Your task to perform on an android device: Do I have any events today? Image 0: 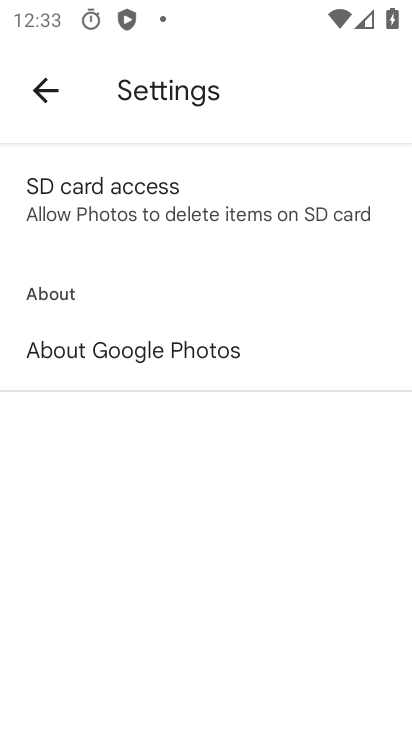
Step 0: press home button
Your task to perform on an android device: Do I have any events today? Image 1: 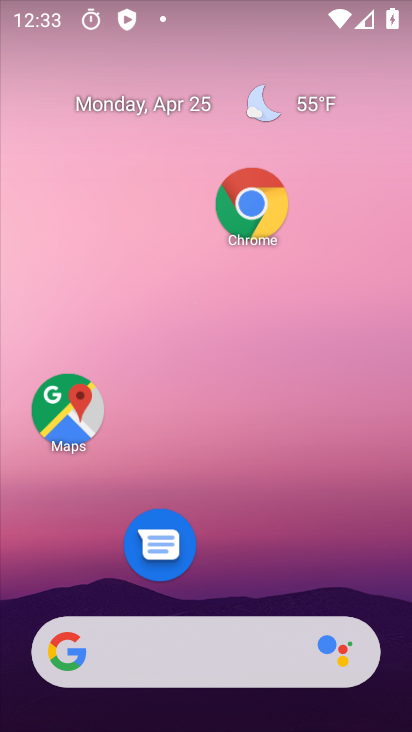
Step 1: drag from (272, 671) to (234, 116)
Your task to perform on an android device: Do I have any events today? Image 2: 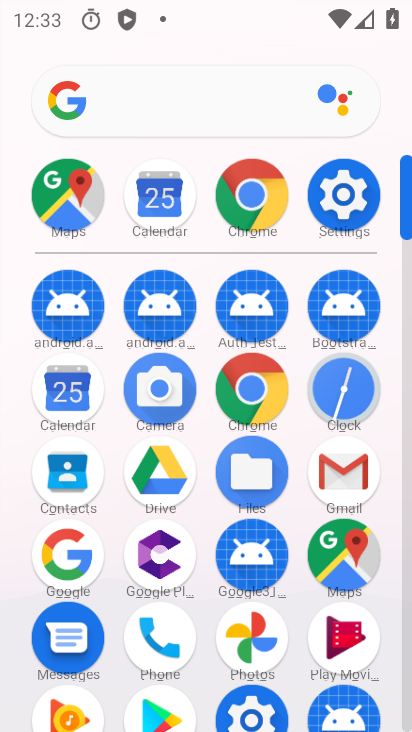
Step 2: click (79, 387)
Your task to perform on an android device: Do I have any events today? Image 3: 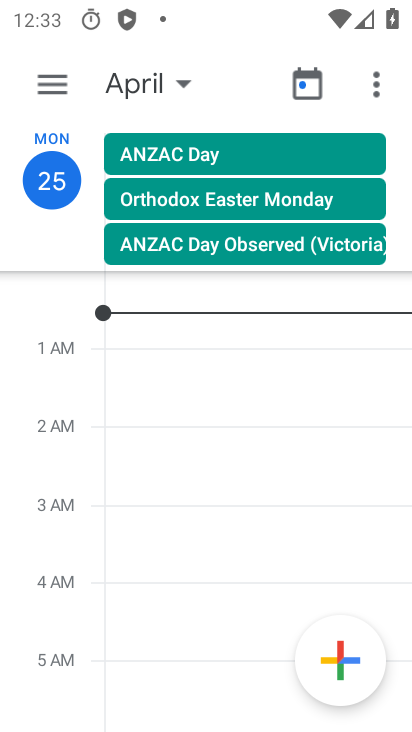
Step 3: click (46, 94)
Your task to perform on an android device: Do I have any events today? Image 4: 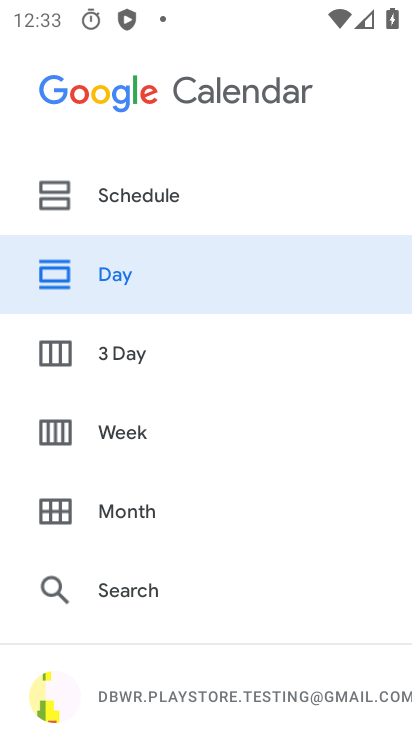
Step 4: click (122, 204)
Your task to perform on an android device: Do I have any events today? Image 5: 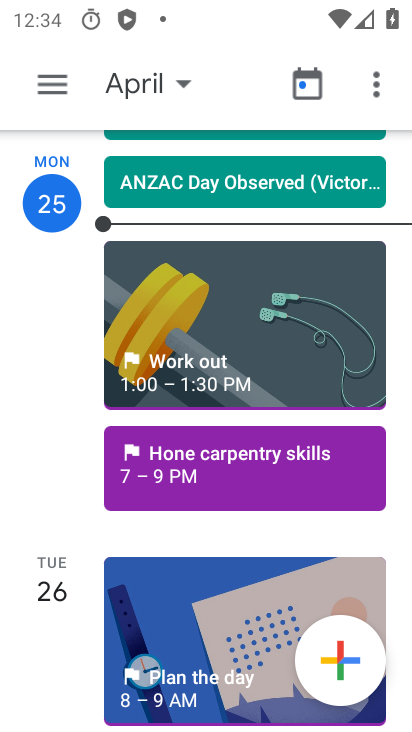
Step 5: task complete